Your task to perform on an android device: move a message to another label in the gmail app Image 0: 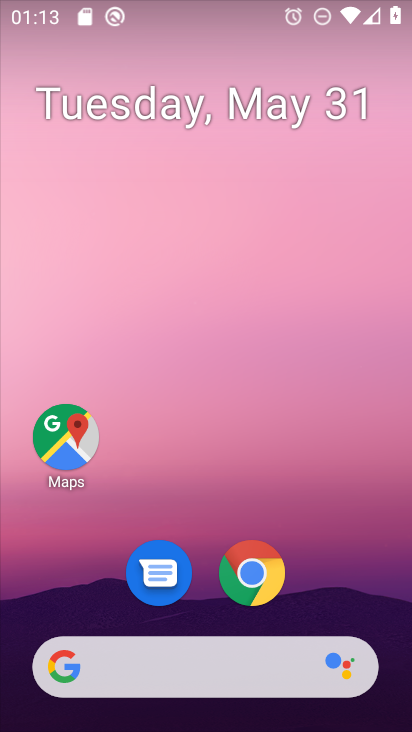
Step 0: drag from (262, 726) to (409, 35)
Your task to perform on an android device: move a message to another label in the gmail app Image 1: 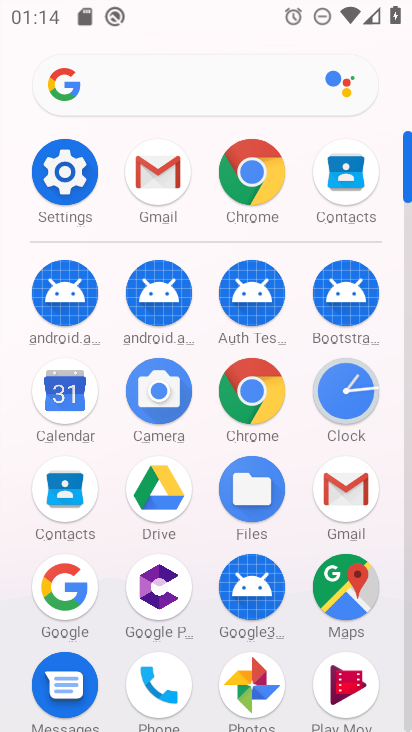
Step 1: click (169, 176)
Your task to perform on an android device: move a message to another label in the gmail app Image 2: 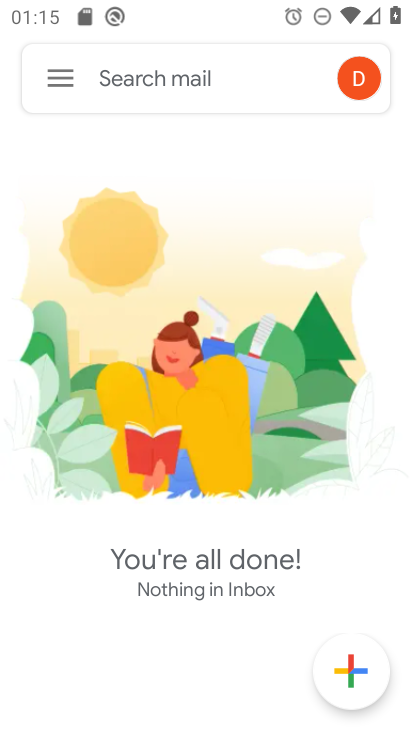
Step 2: task complete